Your task to perform on an android device: Open battery settings Image 0: 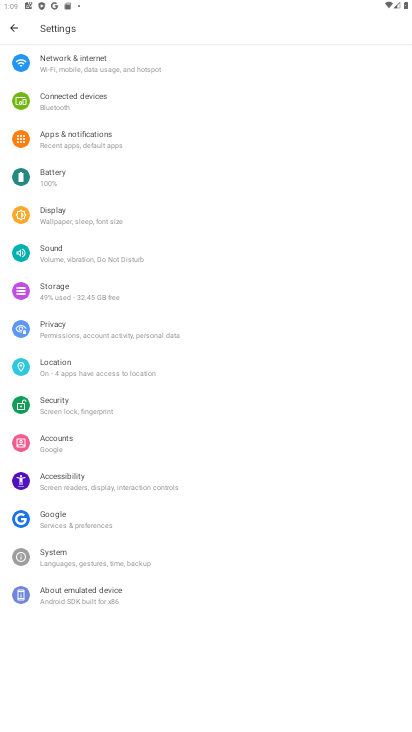
Step 0: click (52, 178)
Your task to perform on an android device: Open battery settings Image 1: 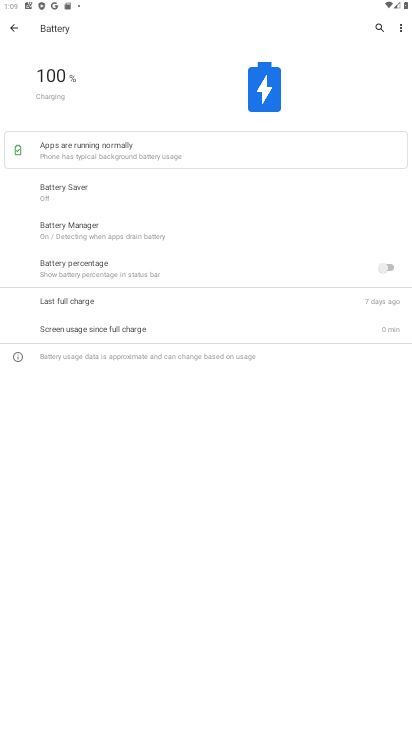
Step 1: task complete